Your task to perform on an android device: open a new tab in the chrome app Image 0: 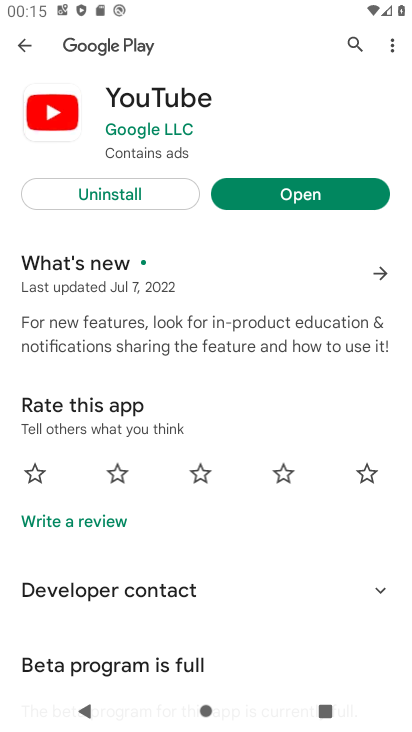
Step 0: press back button
Your task to perform on an android device: open a new tab in the chrome app Image 1: 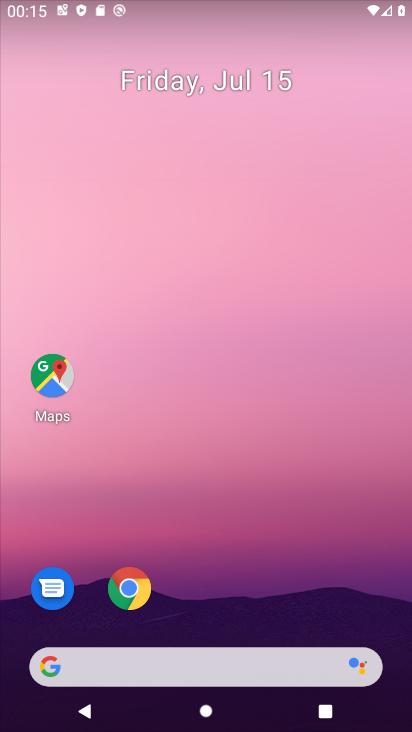
Step 1: click (116, 575)
Your task to perform on an android device: open a new tab in the chrome app Image 2: 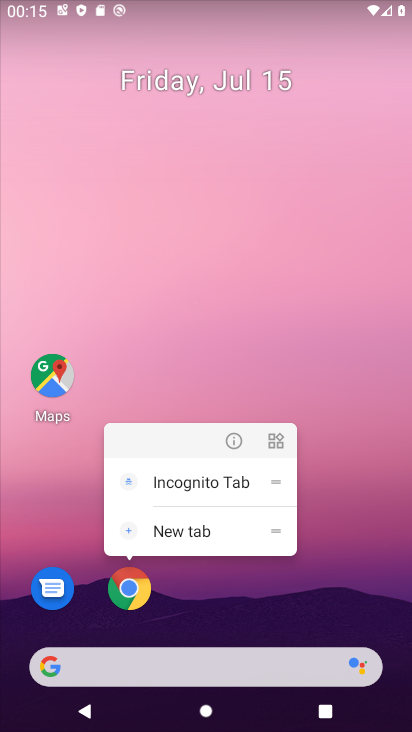
Step 2: click (152, 531)
Your task to perform on an android device: open a new tab in the chrome app Image 3: 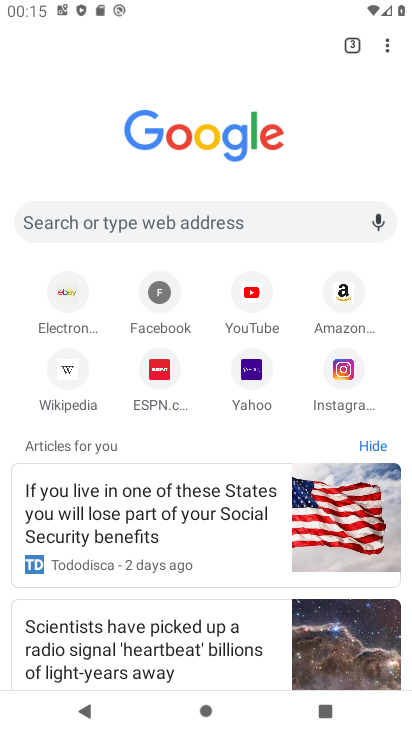
Step 3: task complete